Your task to perform on an android device: check android version Image 0: 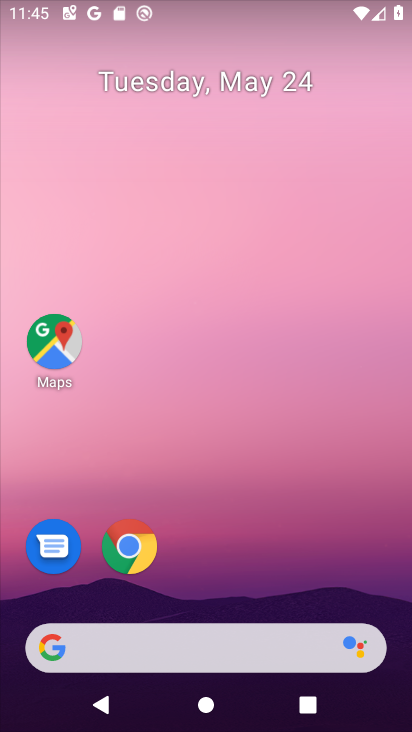
Step 0: drag from (231, 574) to (273, 12)
Your task to perform on an android device: check android version Image 1: 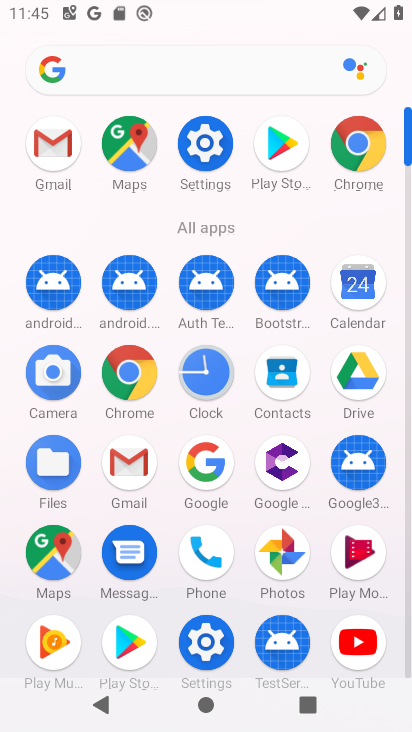
Step 1: click (214, 140)
Your task to perform on an android device: check android version Image 2: 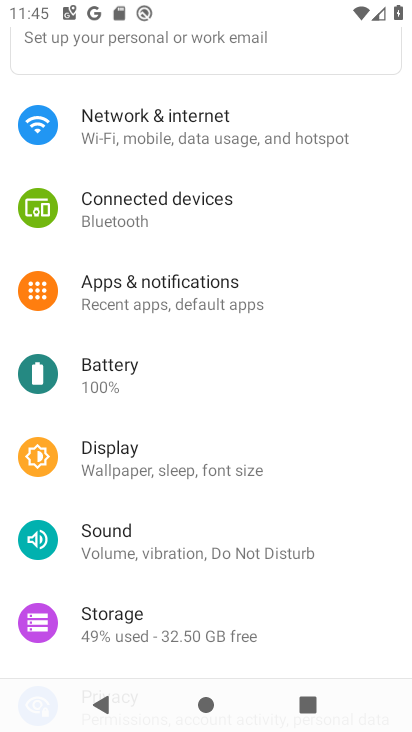
Step 2: drag from (227, 581) to (241, 291)
Your task to perform on an android device: check android version Image 3: 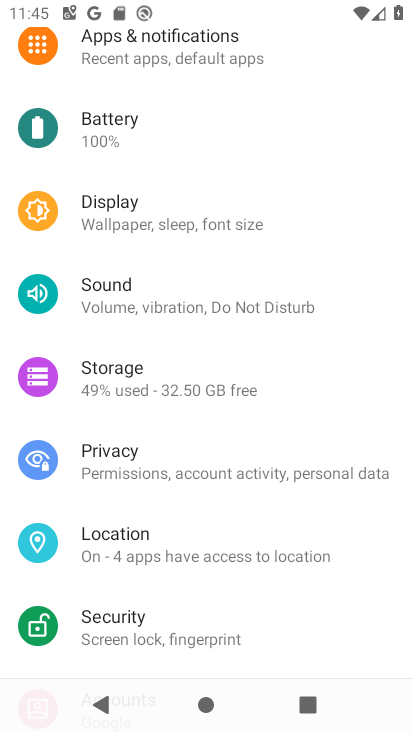
Step 3: drag from (202, 557) to (225, 290)
Your task to perform on an android device: check android version Image 4: 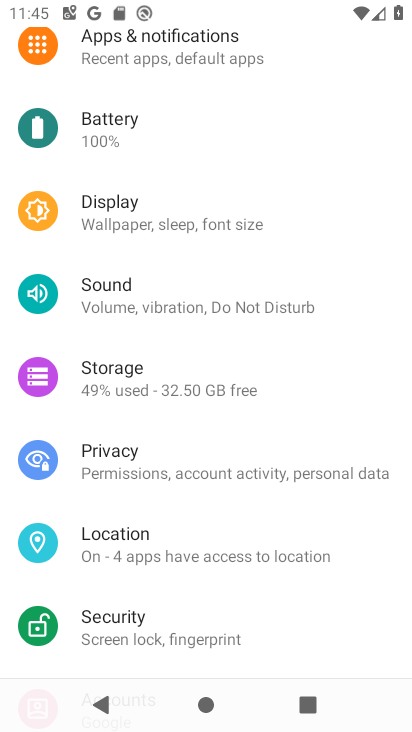
Step 4: drag from (214, 533) to (281, 149)
Your task to perform on an android device: check android version Image 5: 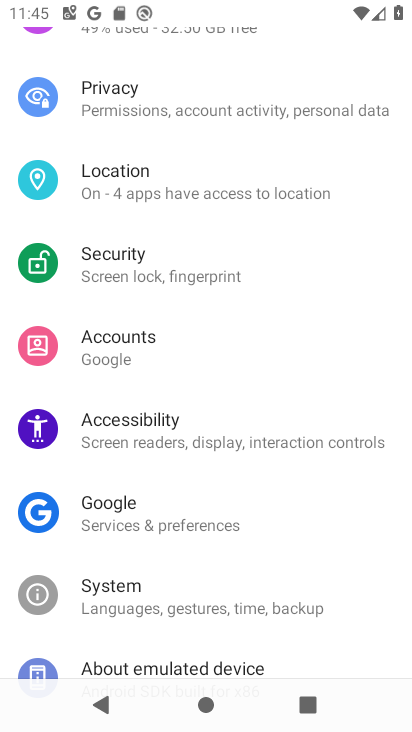
Step 5: drag from (201, 583) to (295, 141)
Your task to perform on an android device: check android version Image 6: 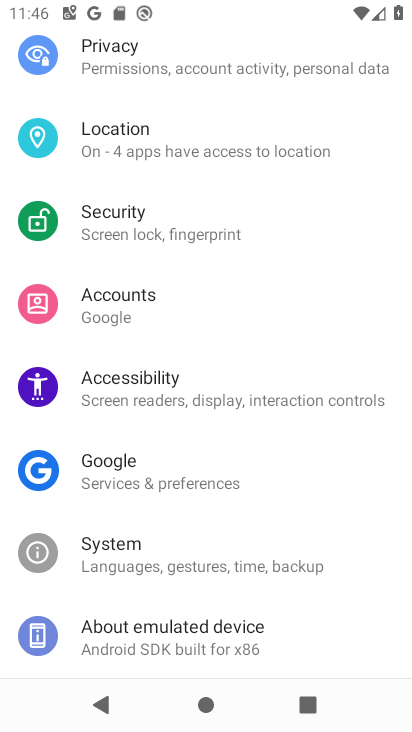
Step 6: click (229, 633)
Your task to perform on an android device: check android version Image 7: 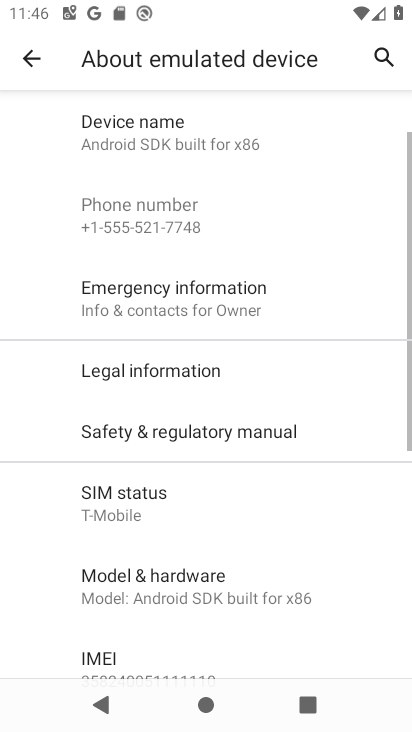
Step 7: drag from (181, 617) to (249, 266)
Your task to perform on an android device: check android version Image 8: 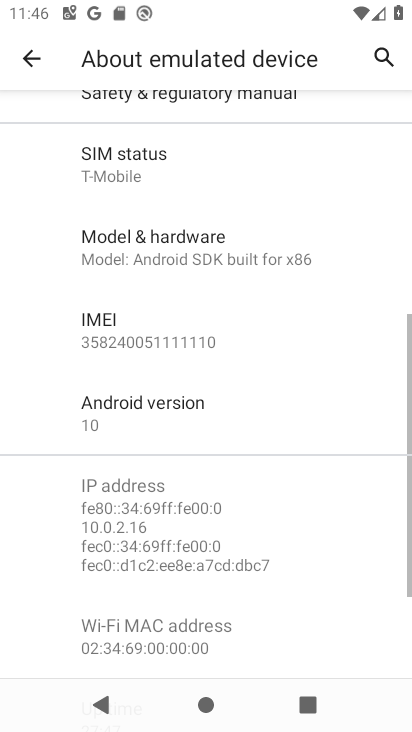
Step 8: click (163, 427)
Your task to perform on an android device: check android version Image 9: 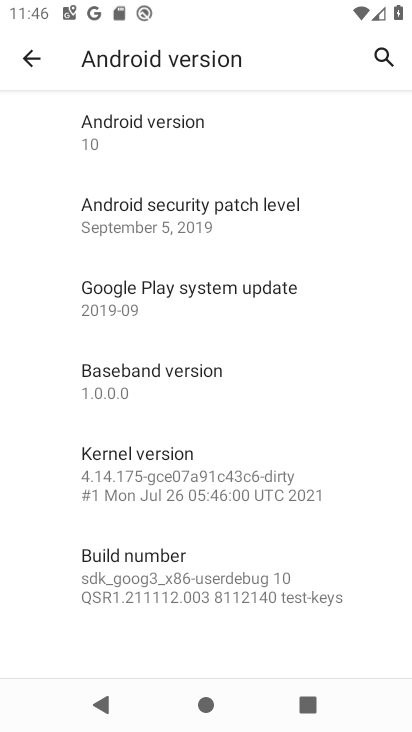
Step 9: task complete